Your task to perform on an android device: Open settings Image 0: 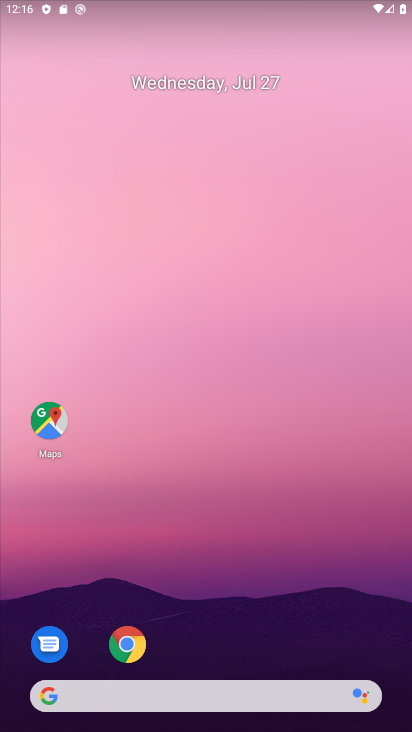
Step 0: drag from (187, 571) to (277, 5)
Your task to perform on an android device: Open settings Image 1: 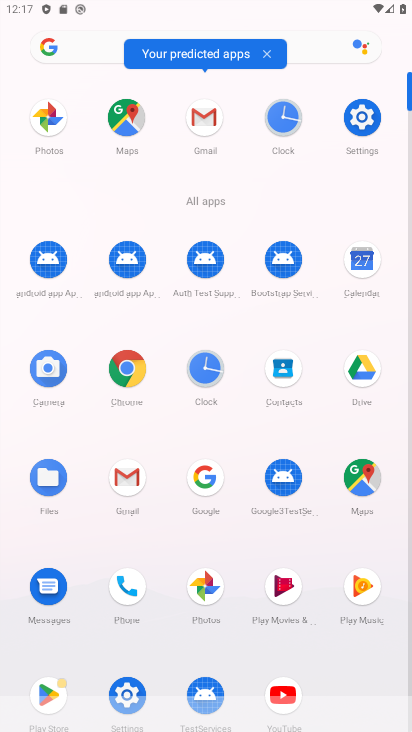
Step 1: click (364, 148)
Your task to perform on an android device: Open settings Image 2: 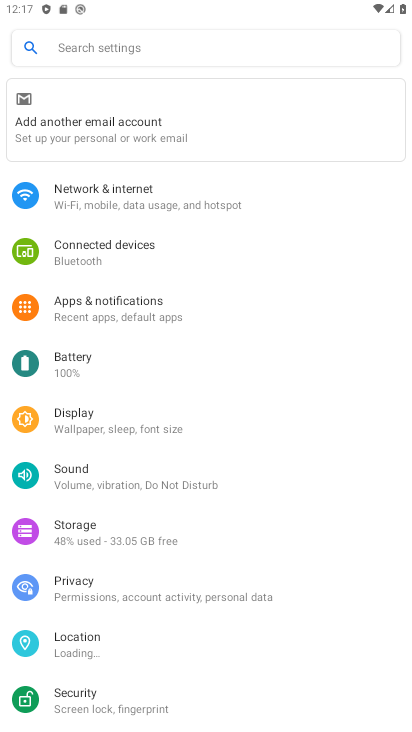
Step 2: task complete